Your task to perform on an android device: Open internet settings Image 0: 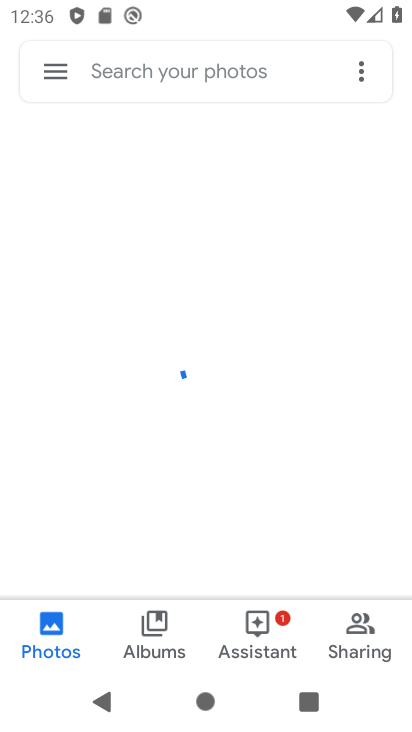
Step 0: press home button
Your task to perform on an android device: Open internet settings Image 1: 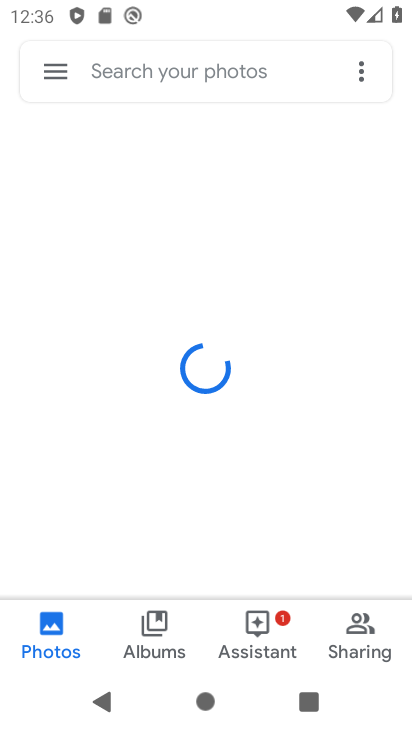
Step 1: press home button
Your task to perform on an android device: Open internet settings Image 2: 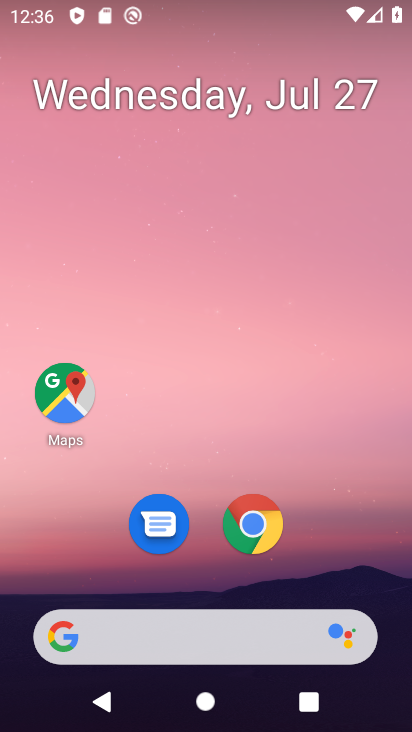
Step 2: drag from (335, 472) to (354, 34)
Your task to perform on an android device: Open internet settings Image 3: 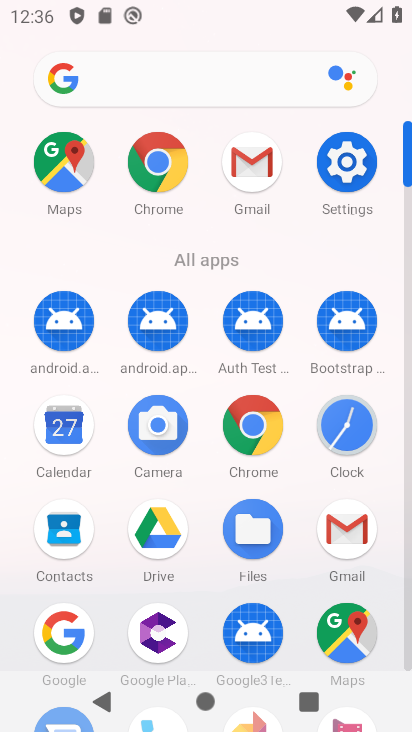
Step 3: click (348, 171)
Your task to perform on an android device: Open internet settings Image 4: 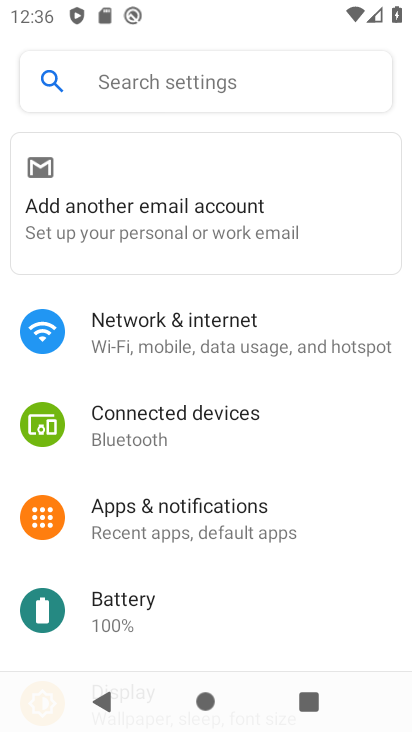
Step 4: click (239, 321)
Your task to perform on an android device: Open internet settings Image 5: 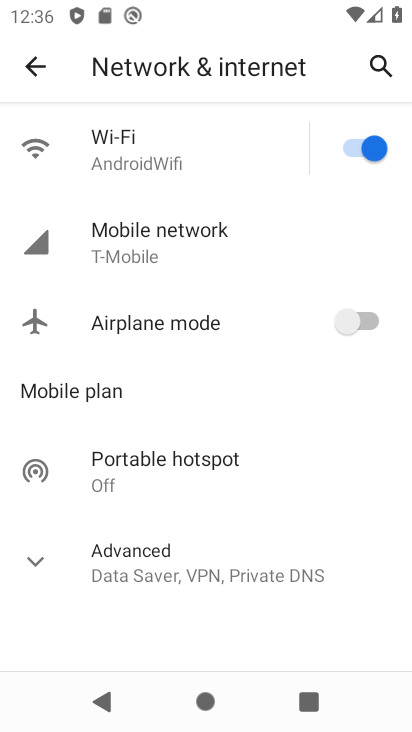
Step 5: task complete